Your task to perform on an android device: make emails show in primary in the gmail app Image 0: 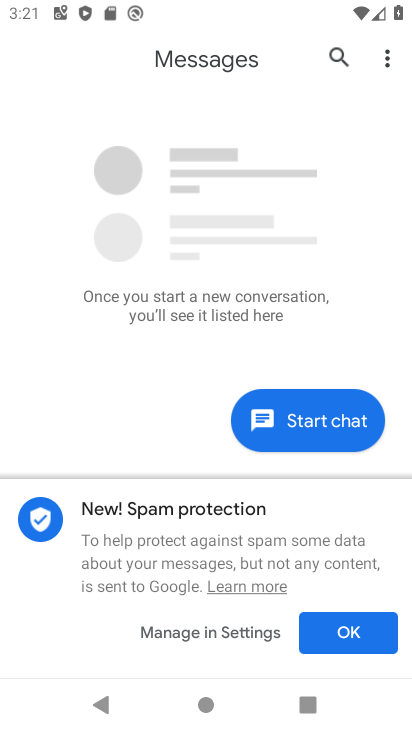
Step 0: drag from (184, 507) to (301, 136)
Your task to perform on an android device: make emails show in primary in the gmail app Image 1: 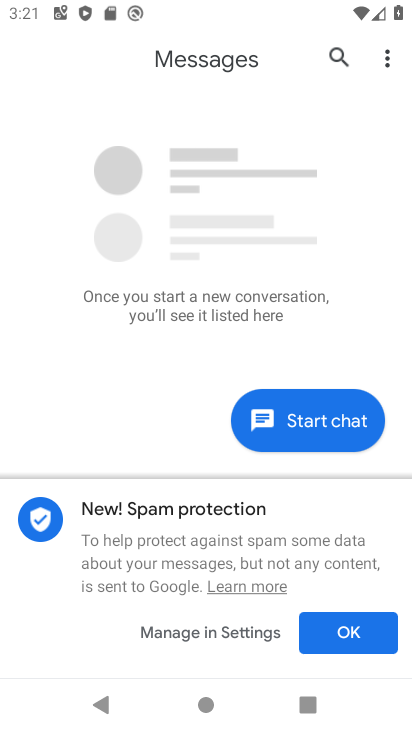
Step 1: drag from (294, 186) to (354, 564)
Your task to perform on an android device: make emails show in primary in the gmail app Image 2: 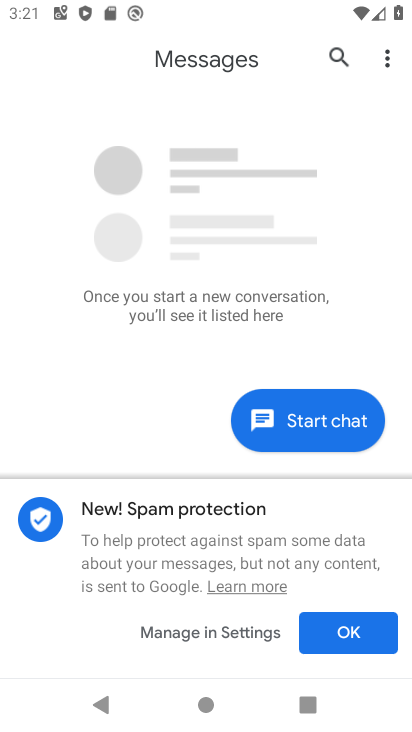
Step 2: press home button
Your task to perform on an android device: make emails show in primary in the gmail app Image 3: 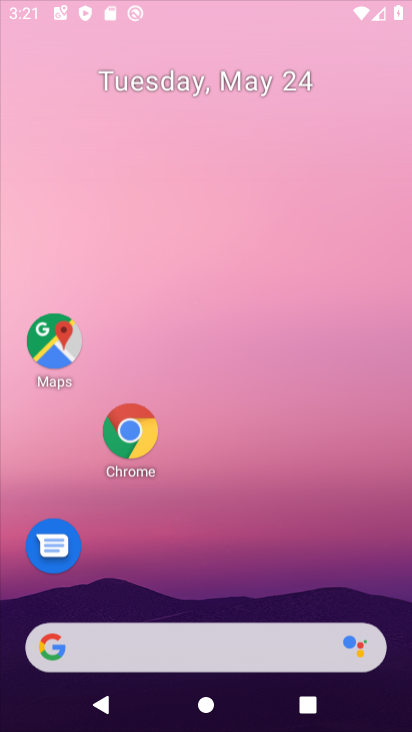
Step 3: drag from (268, 526) to (359, 89)
Your task to perform on an android device: make emails show in primary in the gmail app Image 4: 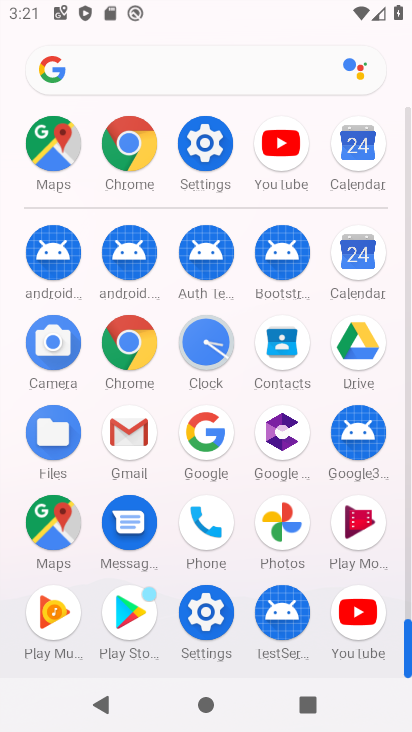
Step 4: click (117, 440)
Your task to perform on an android device: make emails show in primary in the gmail app Image 5: 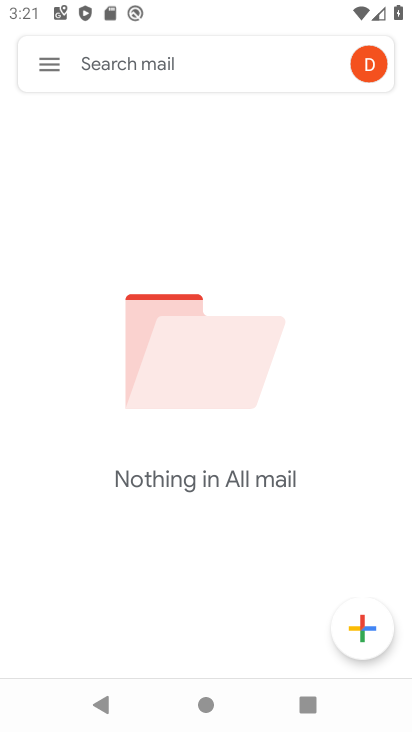
Step 5: click (43, 69)
Your task to perform on an android device: make emails show in primary in the gmail app Image 6: 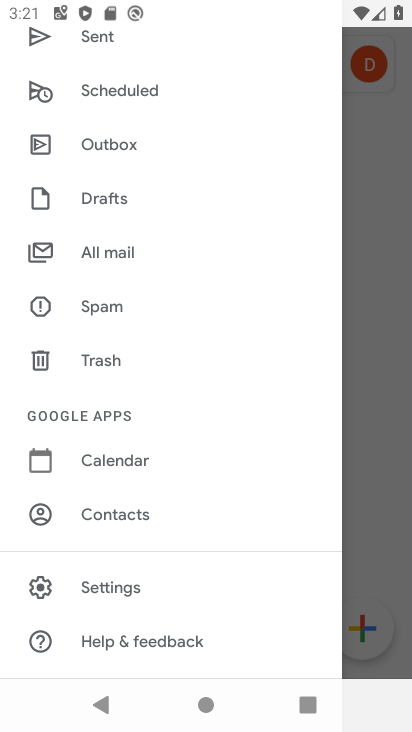
Step 6: drag from (120, 169) to (291, 721)
Your task to perform on an android device: make emails show in primary in the gmail app Image 7: 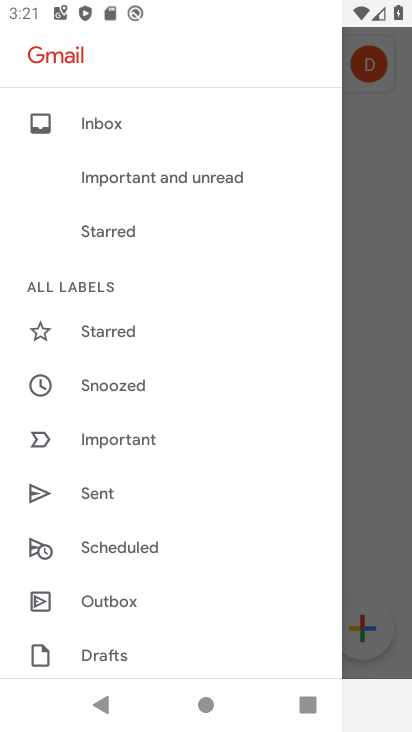
Step 7: click (128, 138)
Your task to perform on an android device: make emails show in primary in the gmail app Image 8: 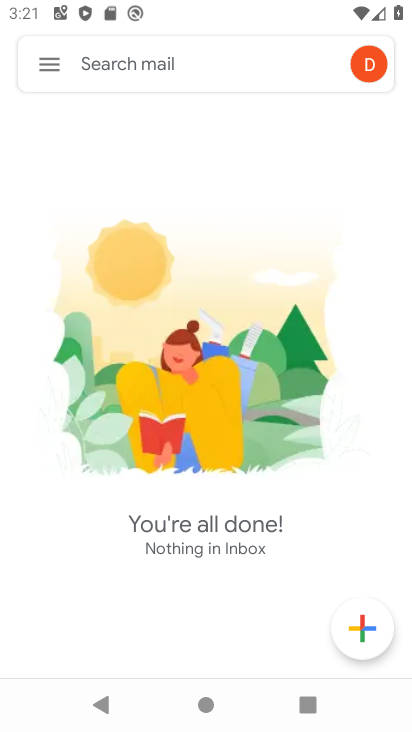
Step 8: drag from (204, 525) to (199, 103)
Your task to perform on an android device: make emails show in primary in the gmail app Image 9: 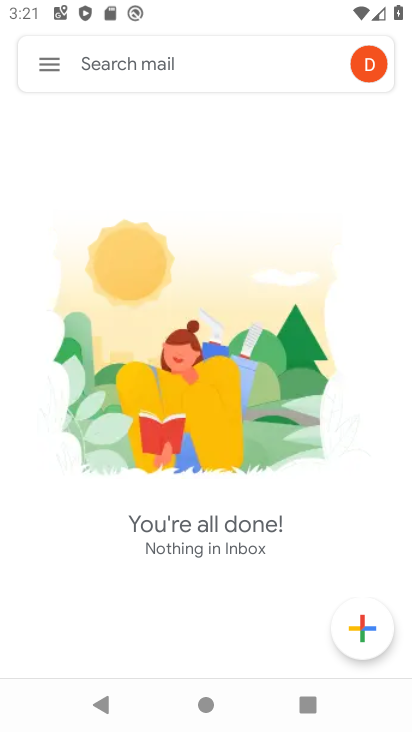
Step 9: click (56, 69)
Your task to perform on an android device: make emails show in primary in the gmail app Image 10: 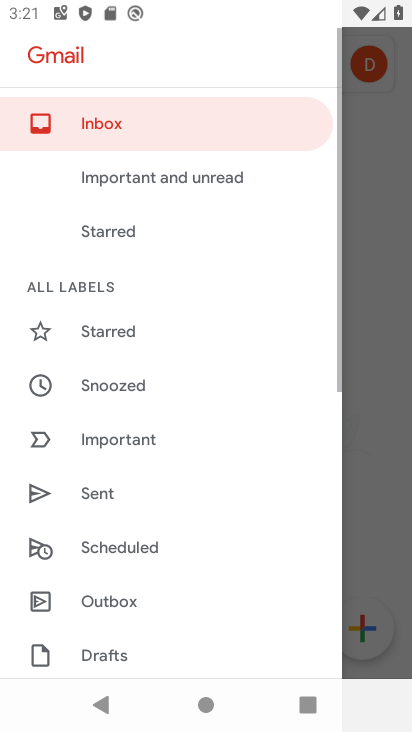
Step 10: click (127, 131)
Your task to perform on an android device: make emails show in primary in the gmail app Image 11: 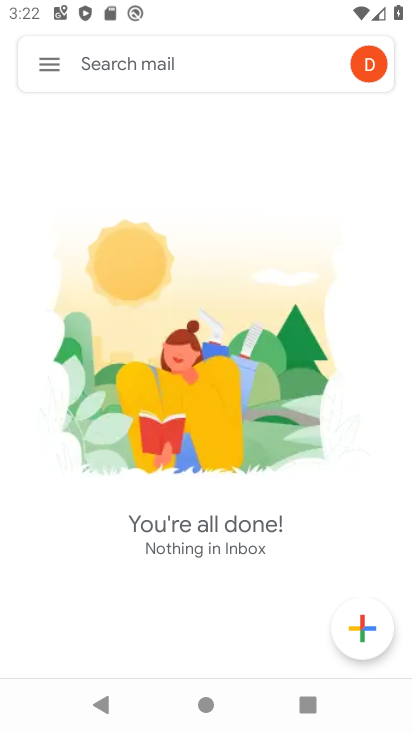
Step 11: task complete